Your task to perform on an android device: Check the news Image 0: 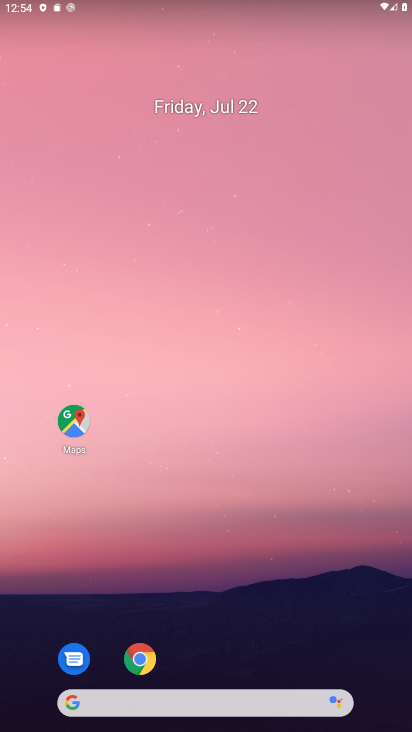
Step 0: click (222, 700)
Your task to perform on an android device: Check the news Image 1: 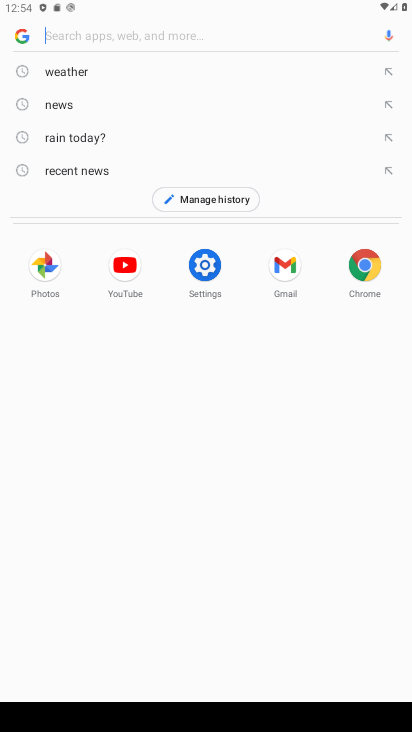
Step 1: click (75, 101)
Your task to perform on an android device: Check the news Image 2: 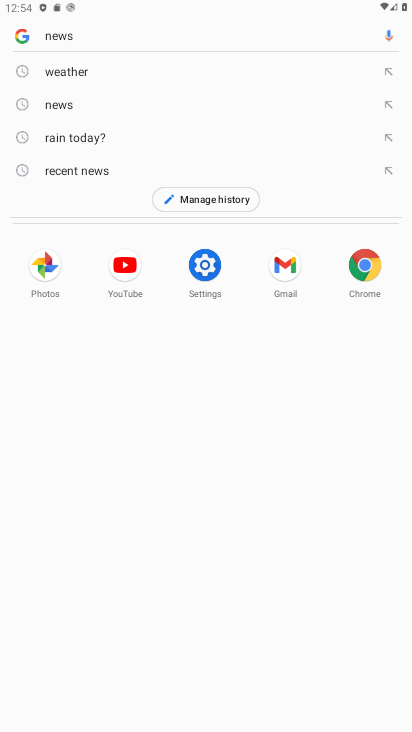
Step 2: task complete